Your task to perform on an android device: allow cookies in the chrome app Image 0: 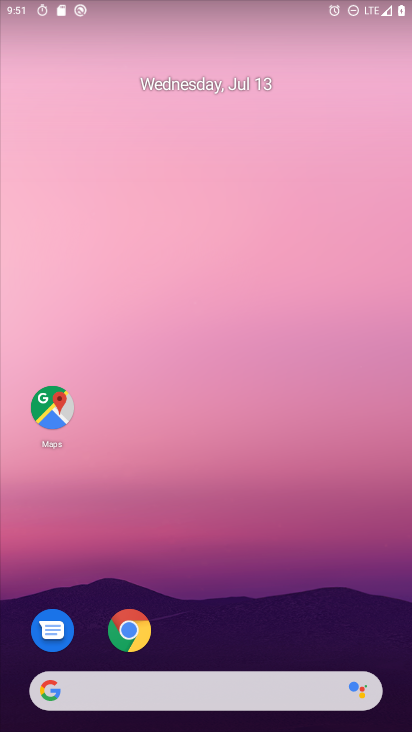
Step 0: drag from (366, 617) to (271, 27)
Your task to perform on an android device: allow cookies in the chrome app Image 1: 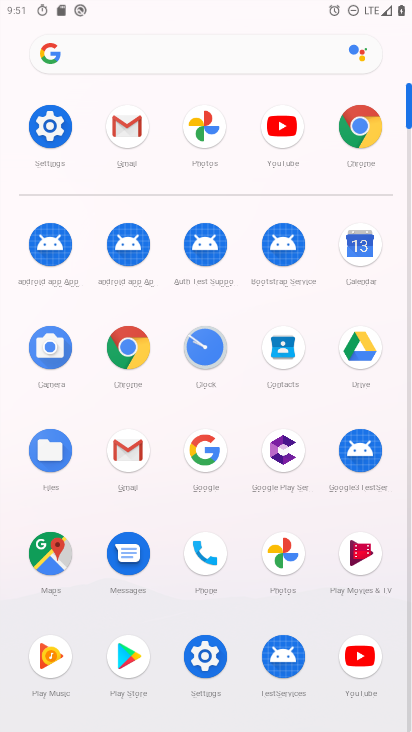
Step 1: click (127, 348)
Your task to perform on an android device: allow cookies in the chrome app Image 2: 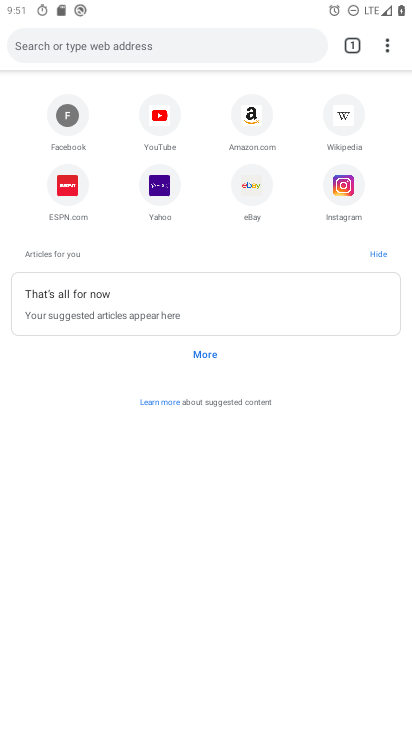
Step 2: click (382, 46)
Your task to perform on an android device: allow cookies in the chrome app Image 3: 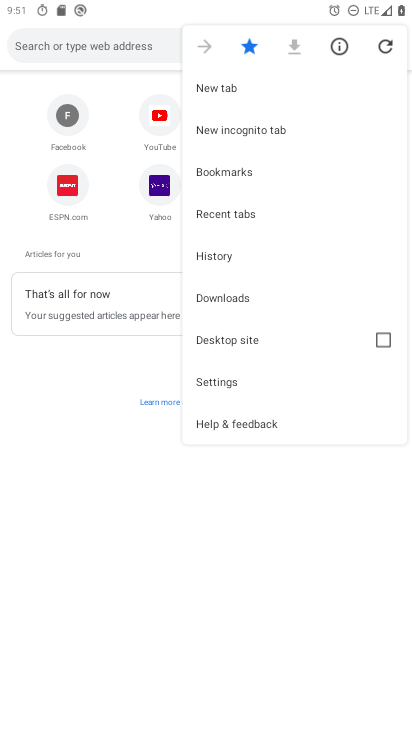
Step 3: click (232, 251)
Your task to perform on an android device: allow cookies in the chrome app Image 4: 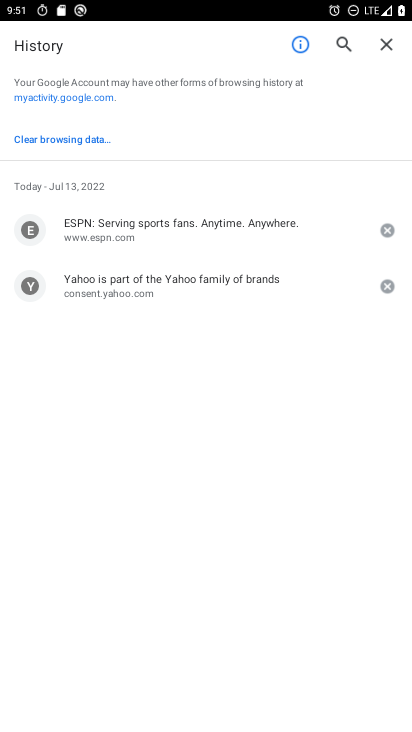
Step 4: click (67, 138)
Your task to perform on an android device: allow cookies in the chrome app Image 5: 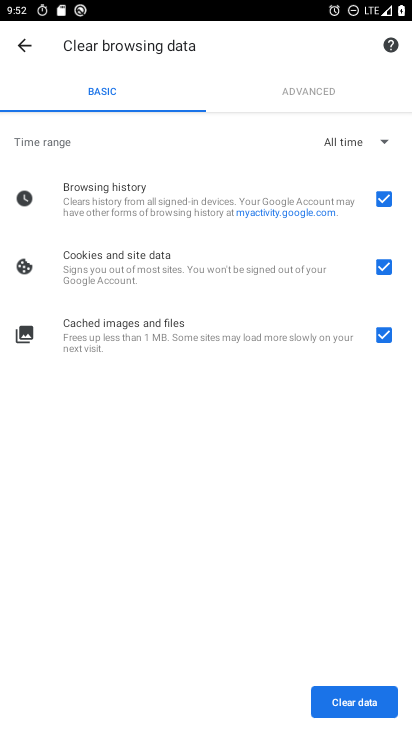
Step 5: task complete